Your task to perform on an android device: Go to settings Image 0: 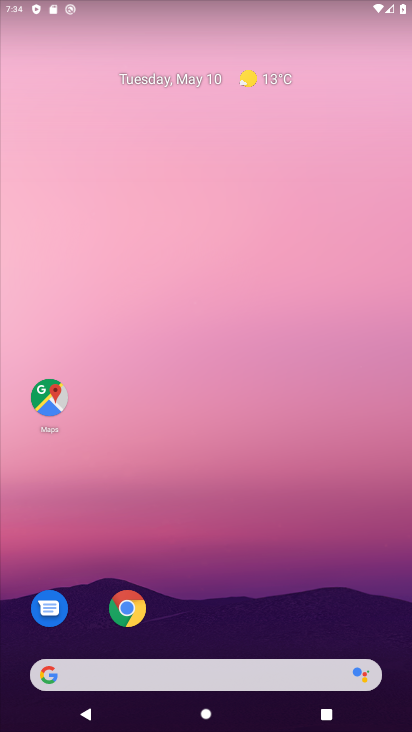
Step 0: drag from (191, 675) to (297, 135)
Your task to perform on an android device: Go to settings Image 1: 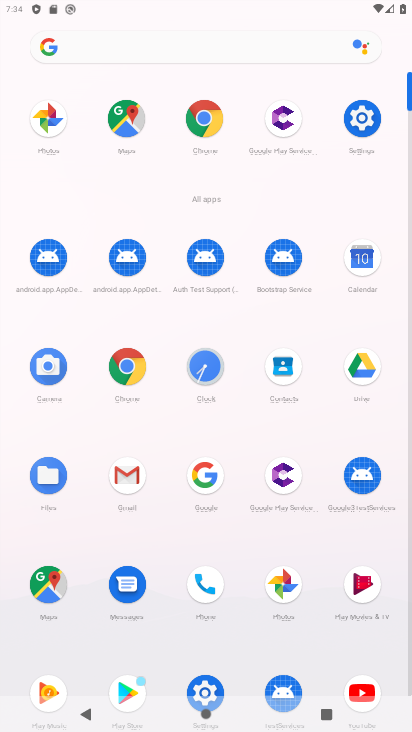
Step 1: click (365, 120)
Your task to perform on an android device: Go to settings Image 2: 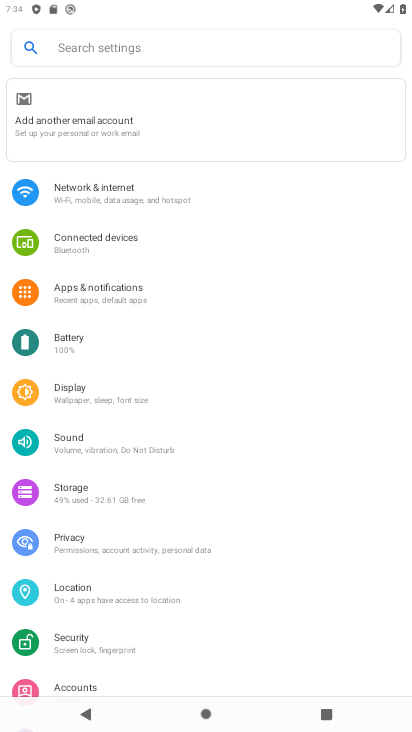
Step 2: task complete